Your task to perform on an android device: Is it going to rain tomorrow? Image 0: 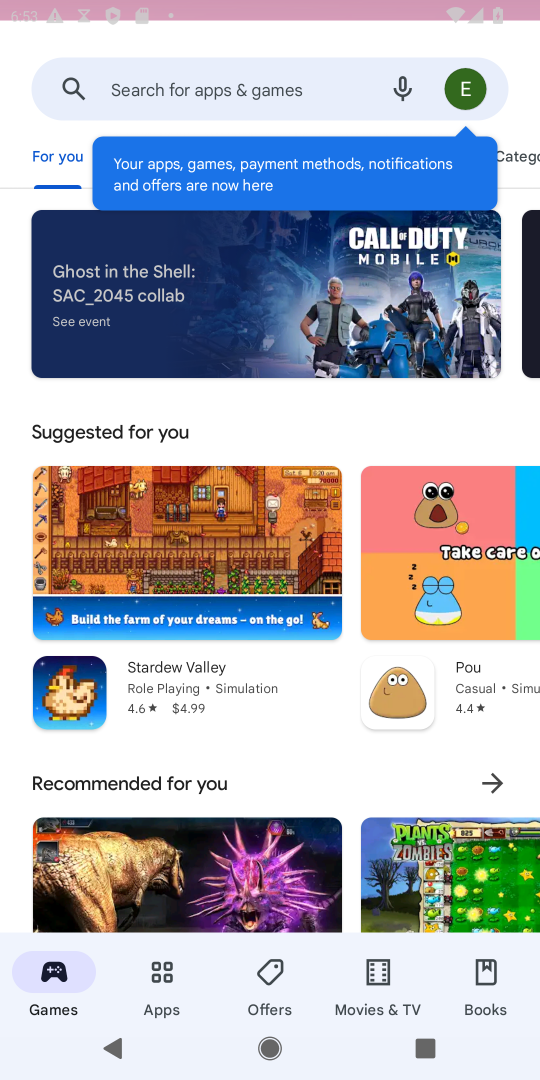
Step 0: press home button
Your task to perform on an android device: Is it going to rain tomorrow? Image 1: 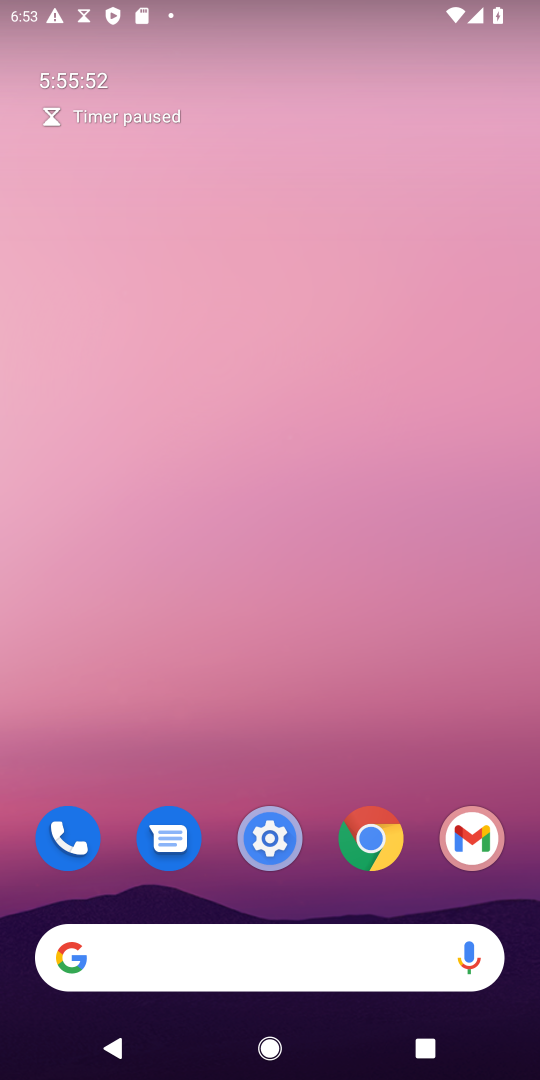
Step 1: click (60, 957)
Your task to perform on an android device: Is it going to rain tomorrow? Image 2: 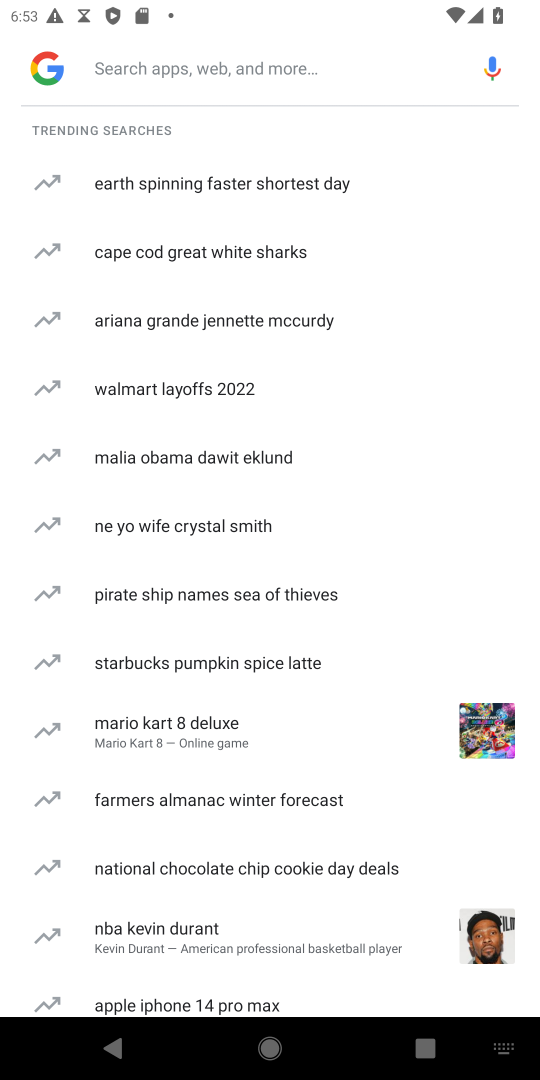
Step 2: type "rain tomorrow?"
Your task to perform on an android device: Is it going to rain tomorrow? Image 3: 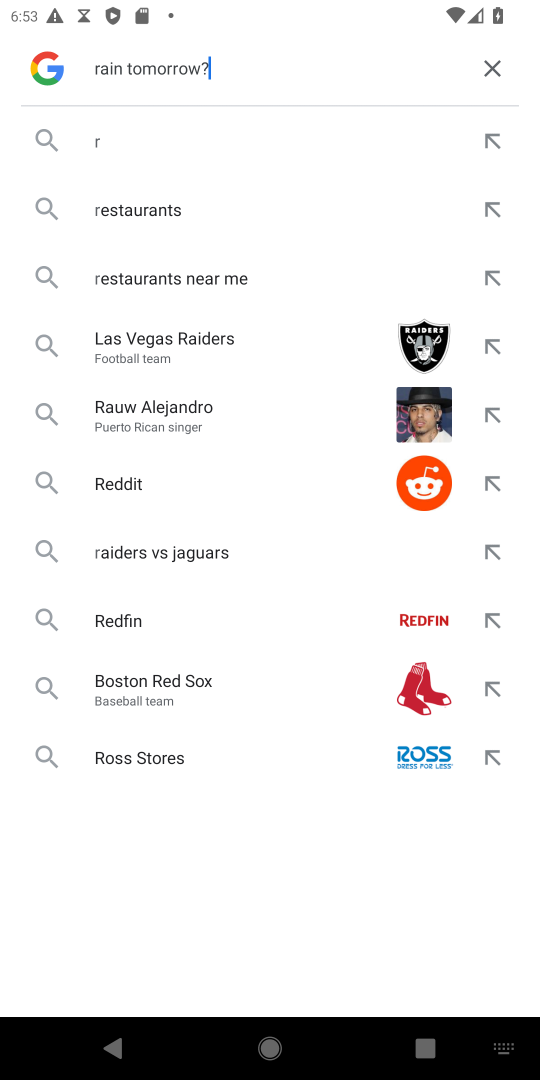
Step 3: press enter
Your task to perform on an android device: Is it going to rain tomorrow? Image 4: 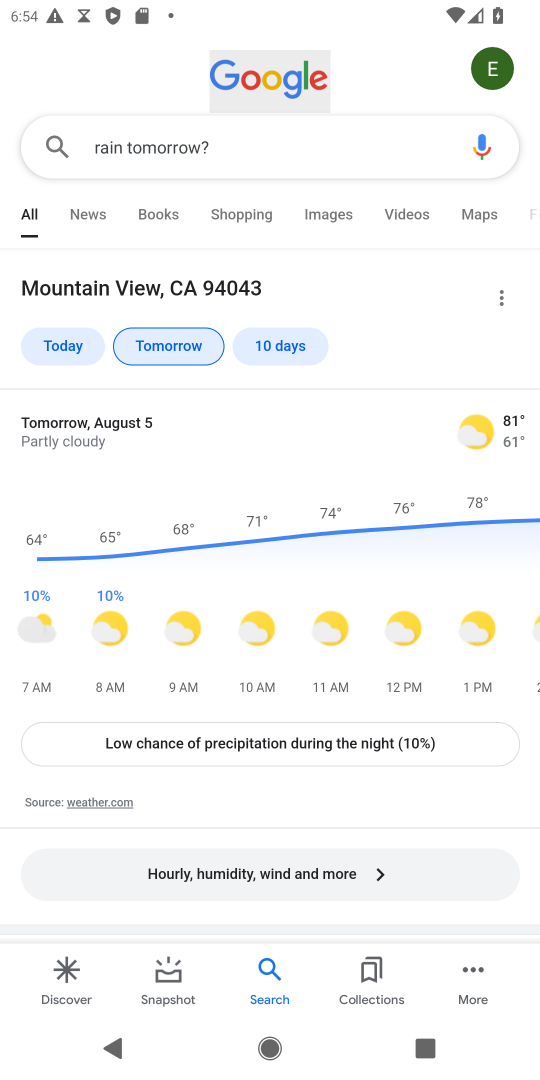
Step 4: task complete